Your task to perform on an android device: change the clock display to analog Image 0: 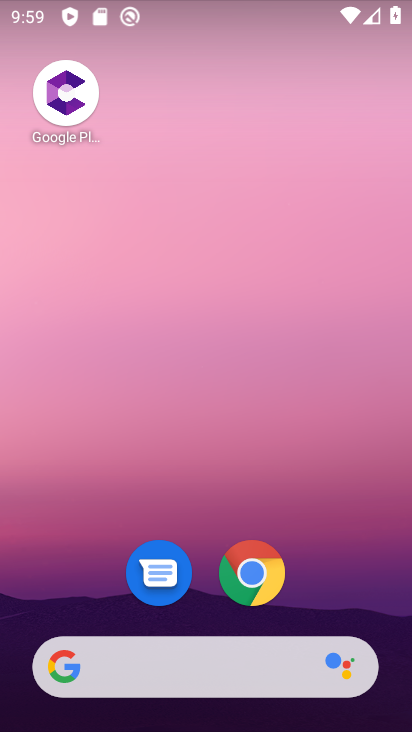
Step 0: drag from (263, 625) to (285, 424)
Your task to perform on an android device: change the clock display to analog Image 1: 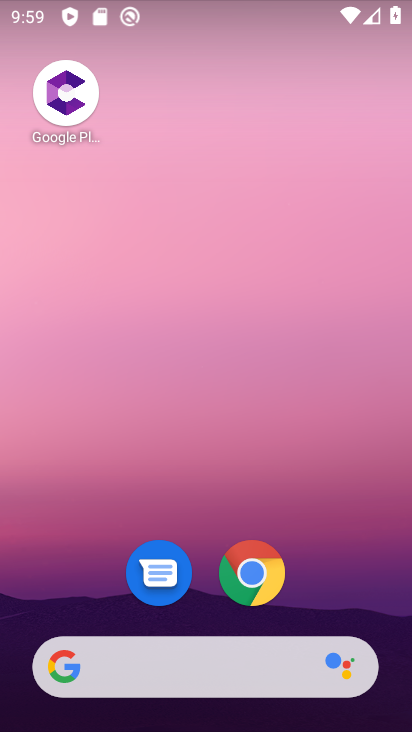
Step 1: drag from (228, 636) to (251, 306)
Your task to perform on an android device: change the clock display to analog Image 2: 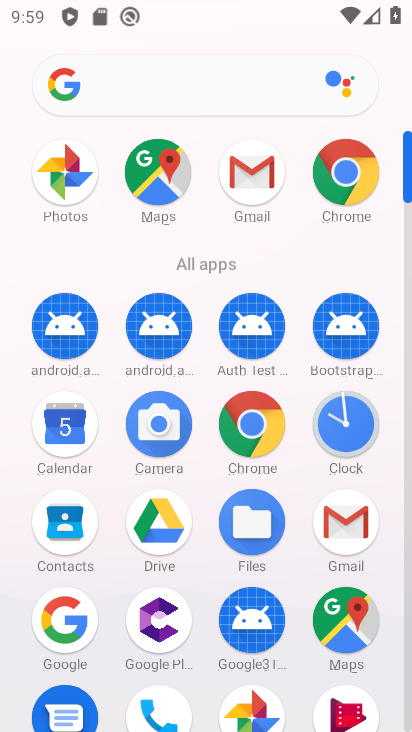
Step 2: drag from (109, 629) to (109, 310)
Your task to perform on an android device: change the clock display to analog Image 3: 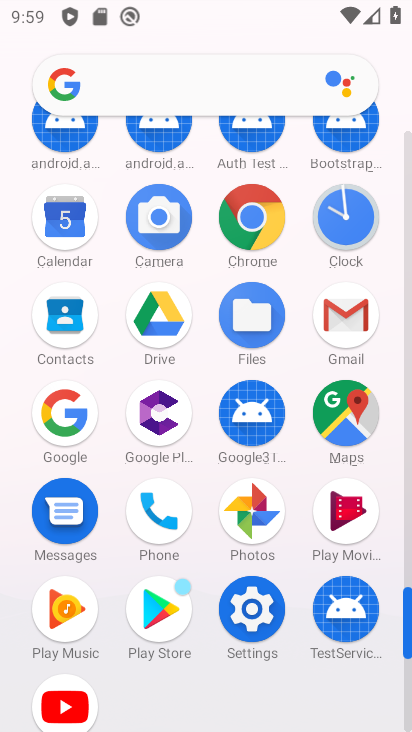
Step 3: click (365, 220)
Your task to perform on an android device: change the clock display to analog Image 4: 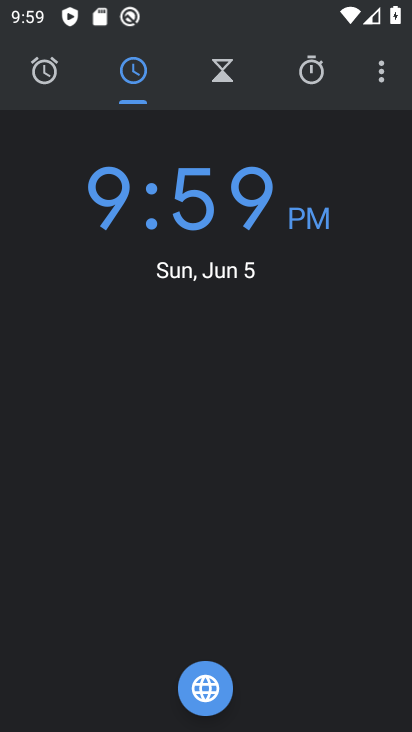
Step 4: click (384, 71)
Your task to perform on an android device: change the clock display to analog Image 5: 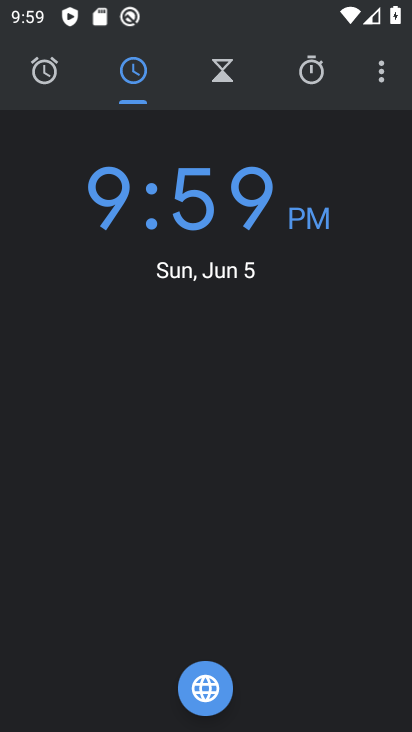
Step 5: click (380, 72)
Your task to perform on an android device: change the clock display to analog Image 6: 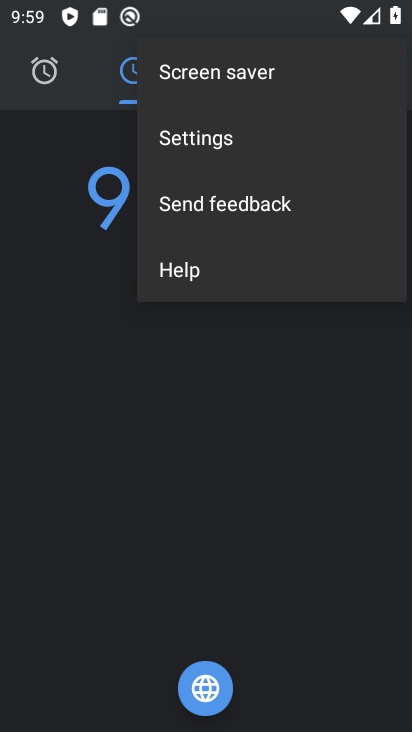
Step 6: click (230, 141)
Your task to perform on an android device: change the clock display to analog Image 7: 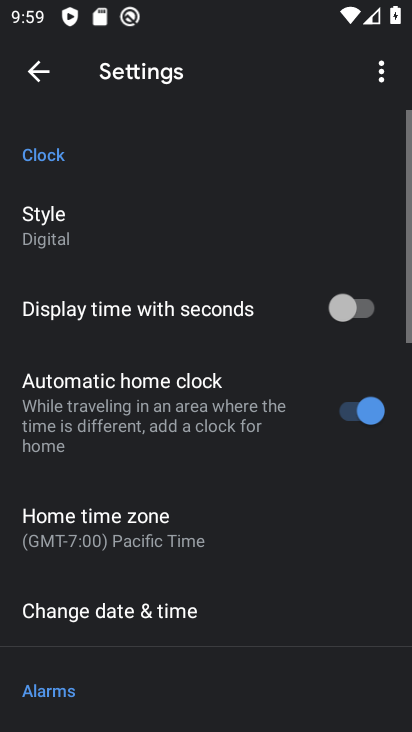
Step 7: click (109, 228)
Your task to perform on an android device: change the clock display to analog Image 8: 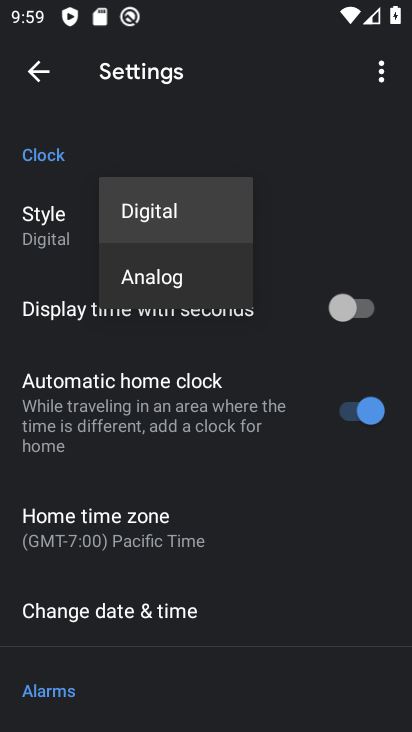
Step 8: click (149, 258)
Your task to perform on an android device: change the clock display to analog Image 9: 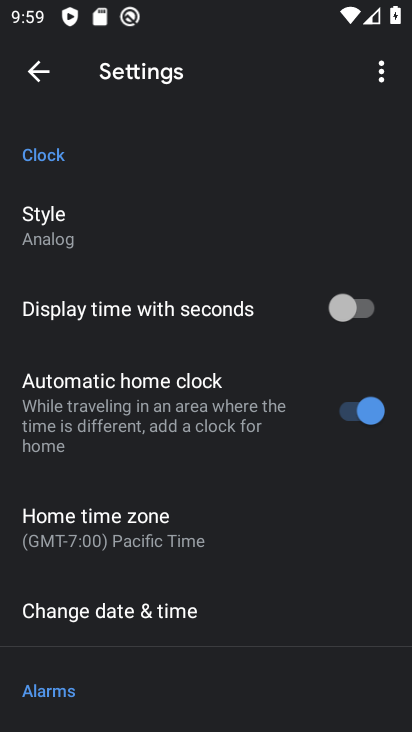
Step 9: task complete